Your task to perform on an android device: change text size in settings app Image 0: 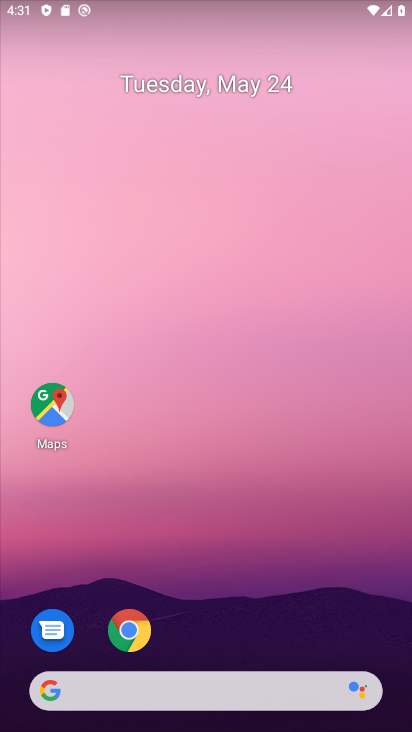
Step 0: drag from (180, 644) to (174, 119)
Your task to perform on an android device: change text size in settings app Image 1: 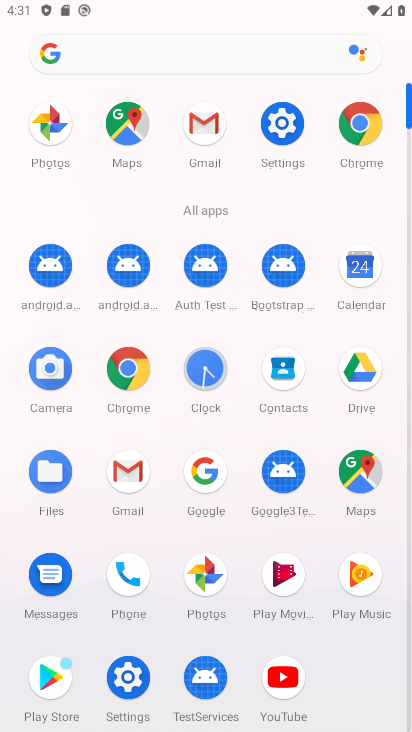
Step 1: click (277, 112)
Your task to perform on an android device: change text size in settings app Image 2: 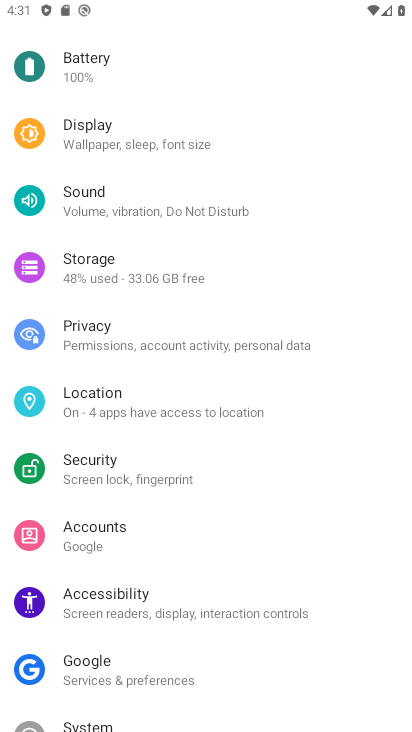
Step 2: drag from (144, 107) to (158, 643)
Your task to perform on an android device: change text size in settings app Image 3: 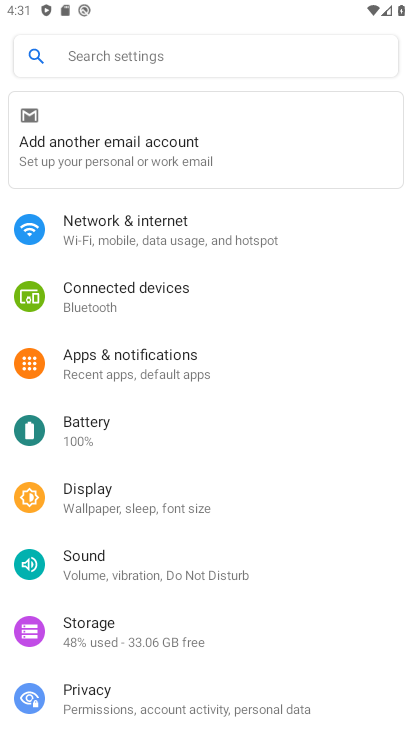
Step 3: drag from (150, 605) to (161, 142)
Your task to perform on an android device: change text size in settings app Image 4: 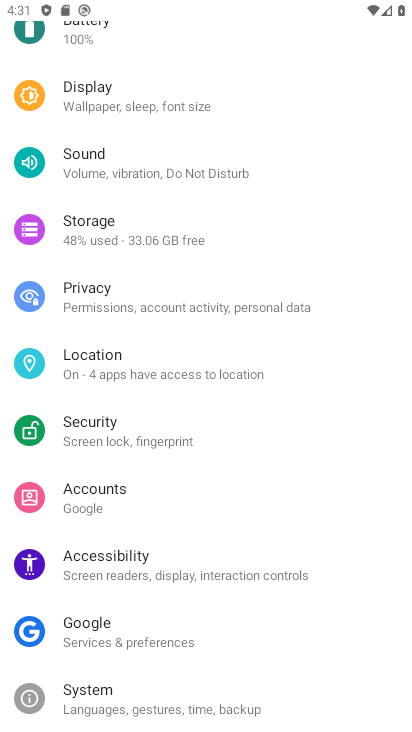
Step 4: drag from (101, 678) to (153, 212)
Your task to perform on an android device: change text size in settings app Image 5: 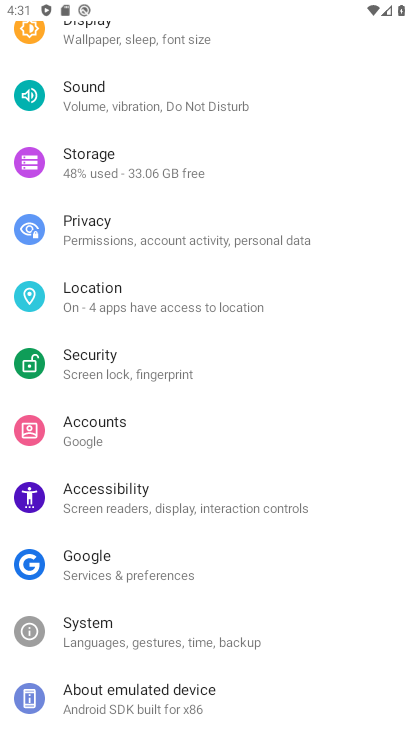
Step 5: click (84, 647)
Your task to perform on an android device: change text size in settings app Image 6: 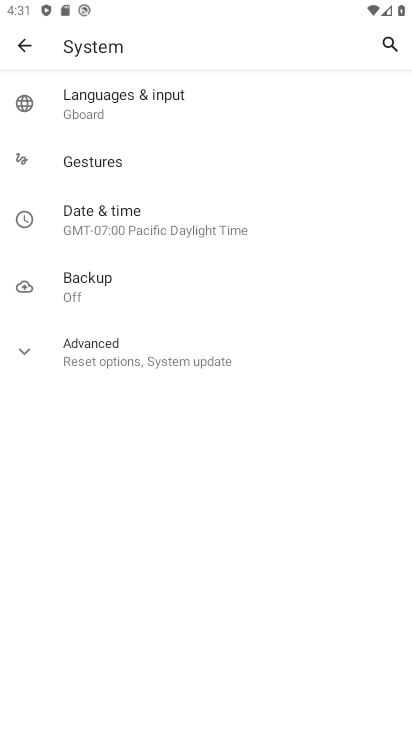
Step 6: click (28, 48)
Your task to perform on an android device: change text size in settings app Image 7: 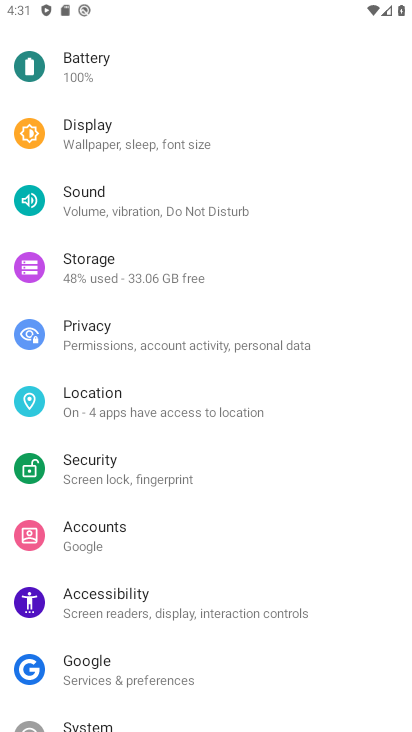
Step 7: click (108, 131)
Your task to perform on an android device: change text size in settings app Image 8: 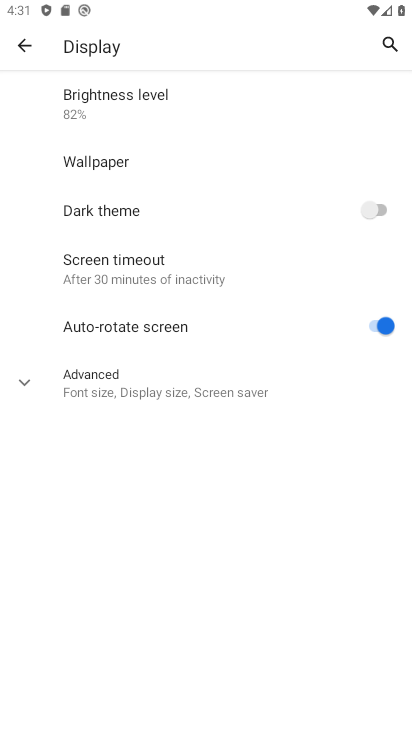
Step 8: click (99, 385)
Your task to perform on an android device: change text size in settings app Image 9: 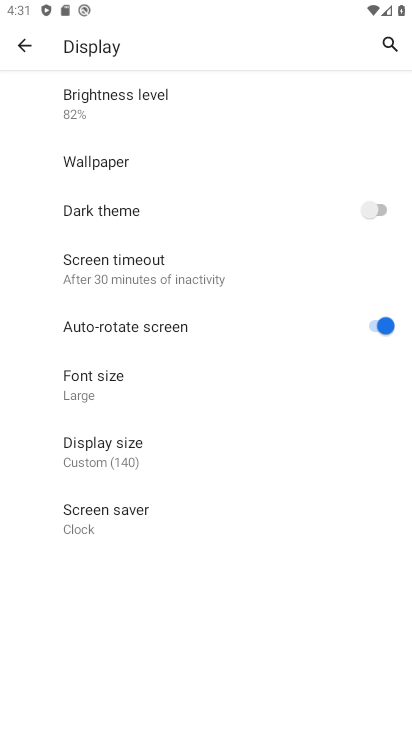
Step 9: click (99, 385)
Your task to perform on an android device: change text size in settings app Image 10: 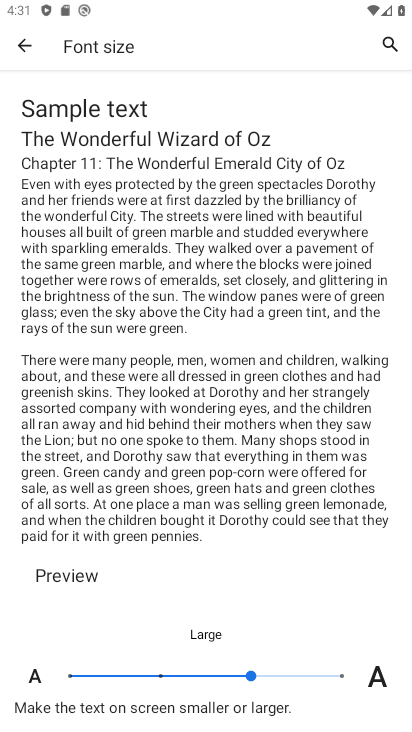
Step 10: click (69, 675)
Your task to perform on an android device: change text size in settings app Image 11: 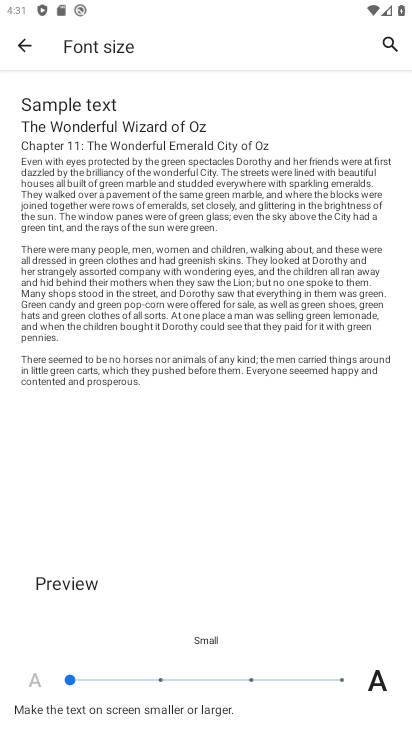
Step 11: task complete